Your task to perform on an android device: Search for sushi restaurants on Maps Image 0: 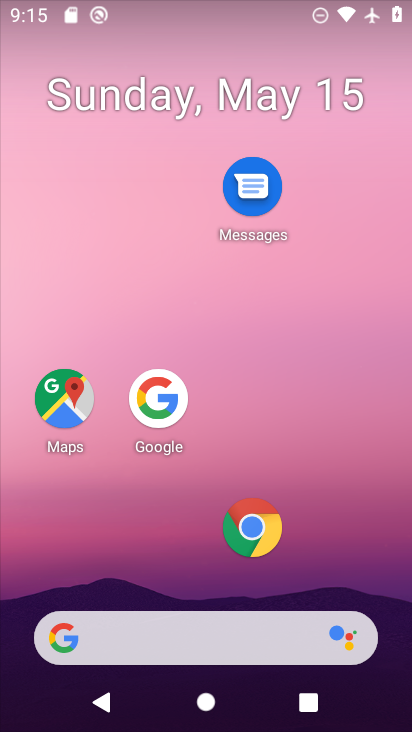
Step 0: press home button
Your task to perform on an android device: Search for sushi restaurants on Maps Image 1: 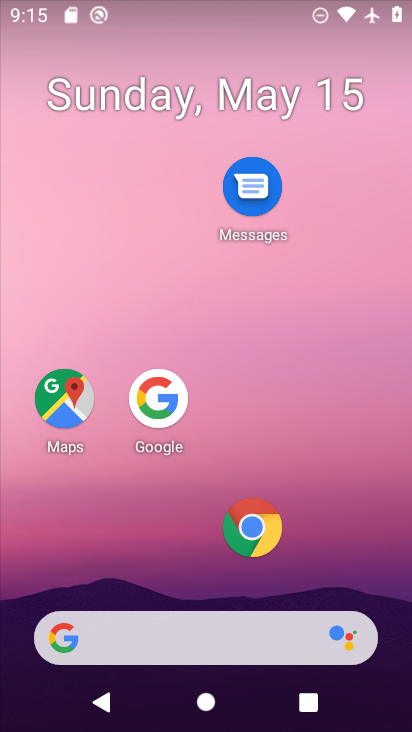
Step 1: click (64, 405)
Your task to perform on an android device: Search for sushi restaurants on Maps Image 2: 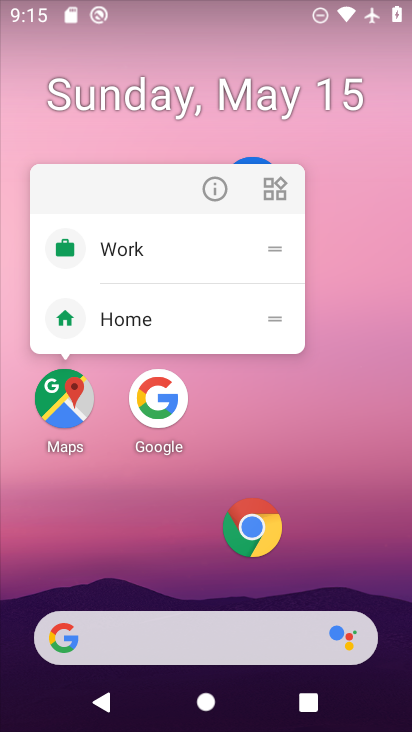
Step 2: click (60, 406)
Your task to perform on an android device: Search for sushi restaurants on Maps Image 3: 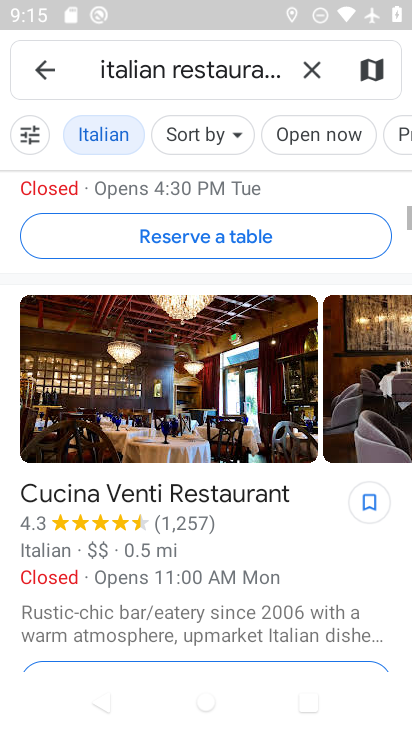
Step 3: click (305, 77)
Your task to perform on an android device: Search for sushi restaurants on Maps Image 4: 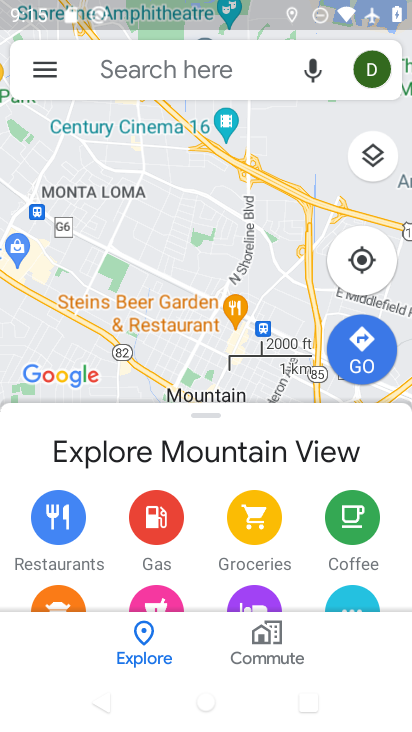
Step 4: click (177, 69)
Your task to perform on an android device: Search for sushi restaurants on Maps Image 5: 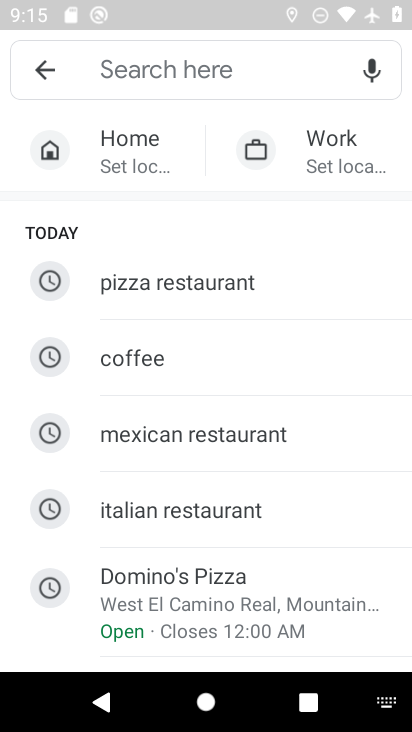
Step 5: drag from (293, 574) to (370, 176)
Your task to perform on an android device: Search for sushi restaurants on Maps Image 6: 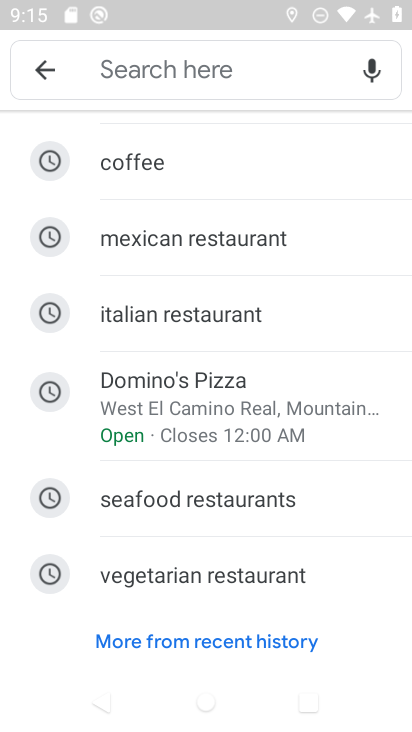
Step 6: click (177, 72)
Your task to perform on an android device: Search for sushi restaurants on Maps Image 7: 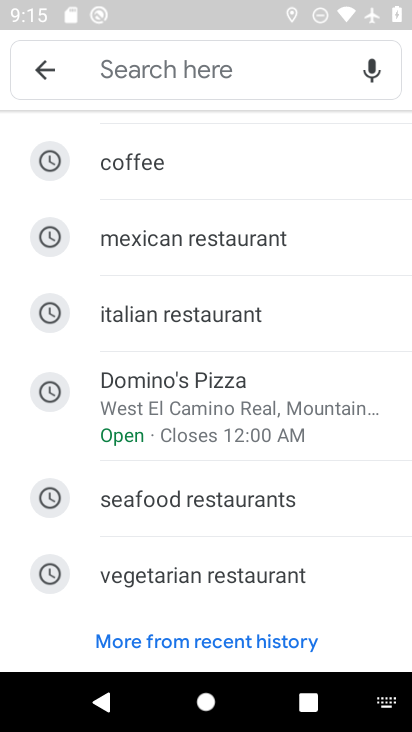
Step 7: type "sushi restaurants"
Your task to perform on an android device: Search for sushi restaurants on Maps Image 8: 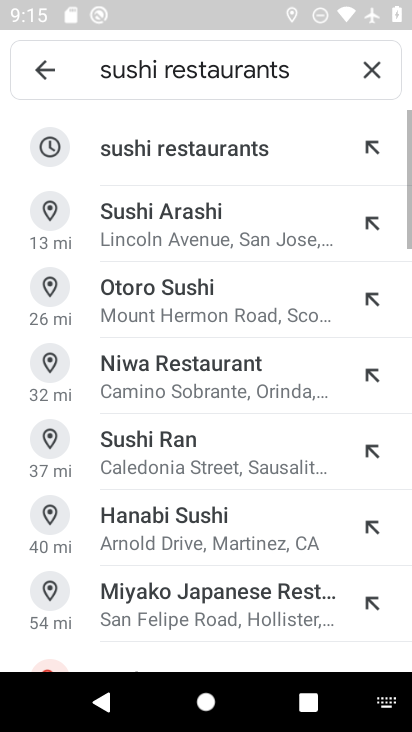
Step 8: click (216, 149)
Your task to perform on an android device: Search for sushi restaurants on Maps Image 9: 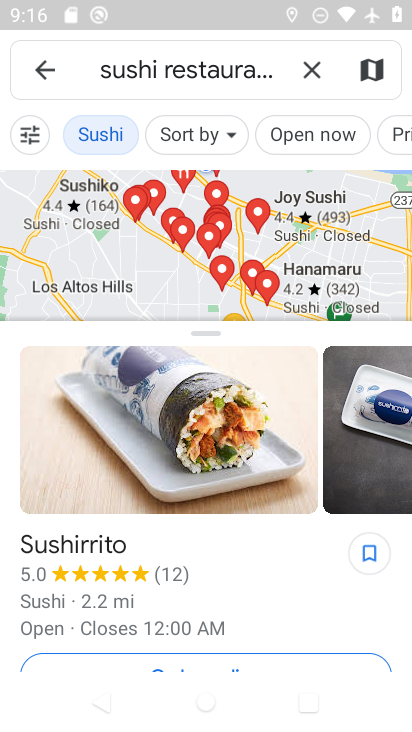
Step 9: task complete